Your task to perform on an android device: toggle show notifications on the lock screen Image 0: 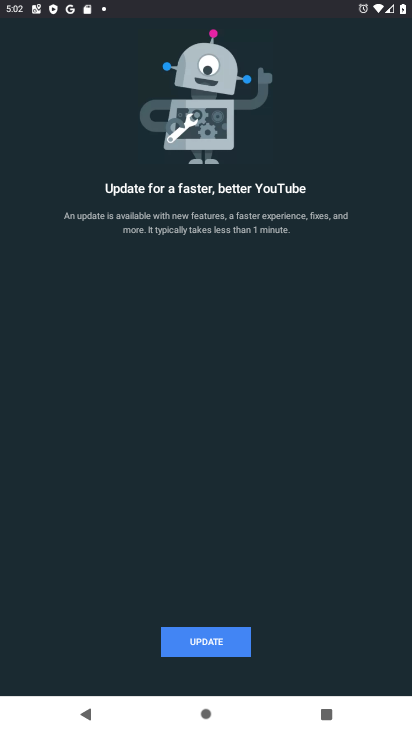
Step 0: press home button
Your task to perform on an android device: toggle show notifications on the lock screen Image 1: 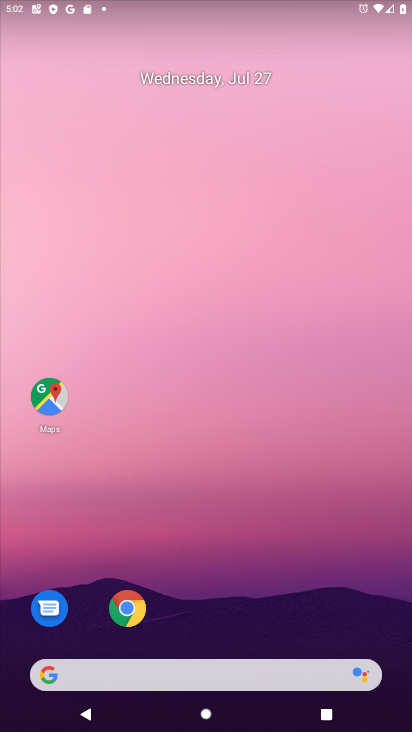
Step 1: drag from (214, 618) to (185, 166)
Your task to perform on an android device: toggle show notifications on the lock screen Image 2: 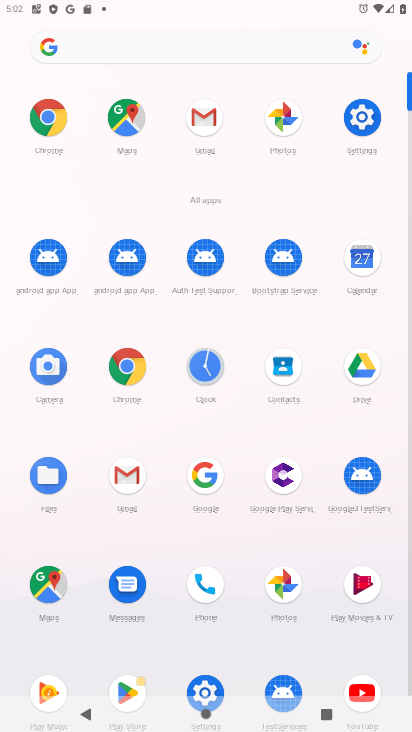
Step 2: click (375, 114)
Your task to perform on an android device: toggle show notifications on the lock screen Image 3: 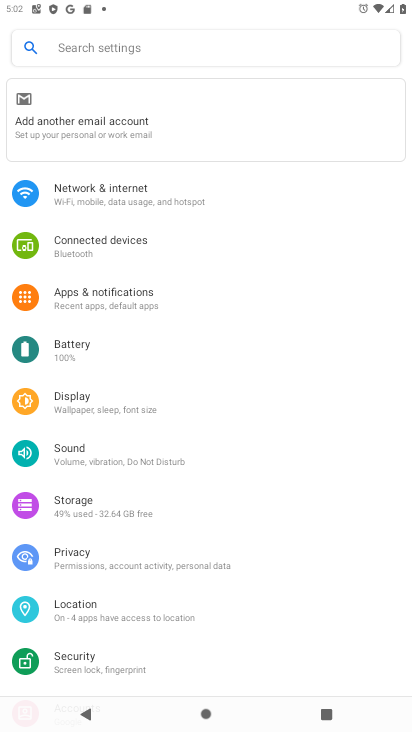
Step 3: click (90, 275)
Your task to perform on an android device: toggle show notifications on the lock screen Image 4: 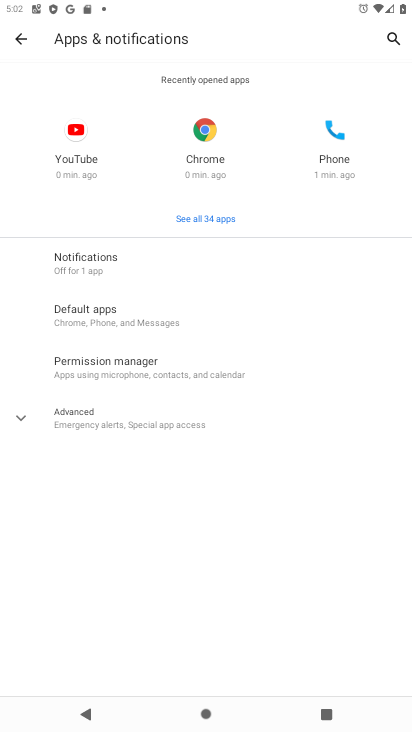
Step 4: click (77, 265)
Your task to perform on an android device: toggle show notifications on the lock screen Image 5: 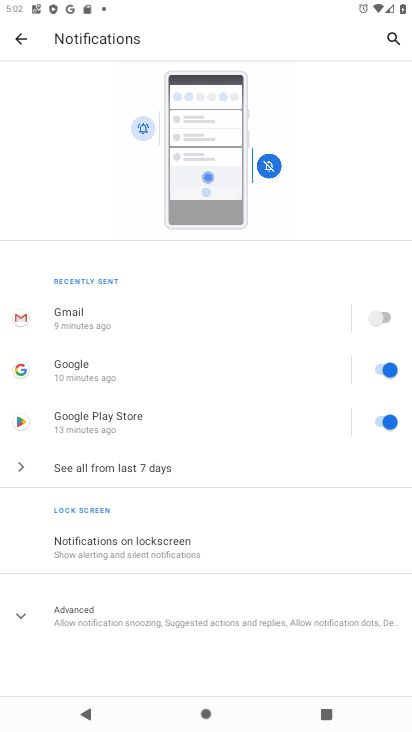
Step 5: click (106, 532)
Your task to perform on an android device: toggle show notifications on the lock screen Image 6: 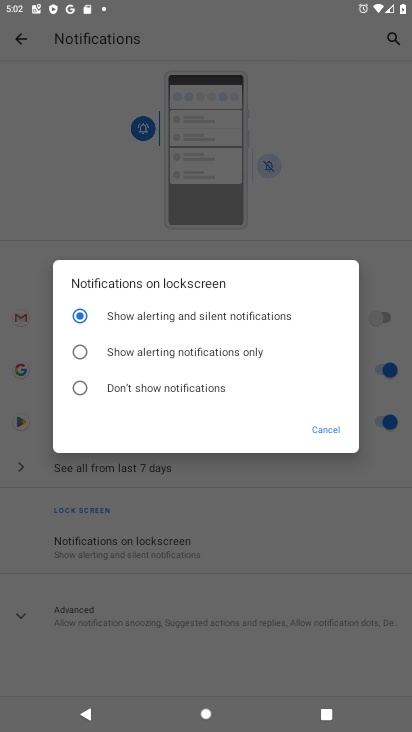
Step 6: click (96, 355)
Your task to perform on an android device: toggle show notifications on the lock screen Image 7: 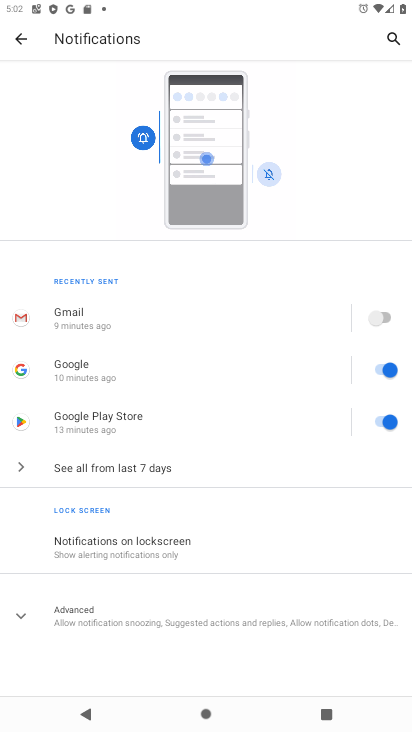
Step 7: task complete